Your task to perform on an android device: turn on translation in the chrome app Image 0: 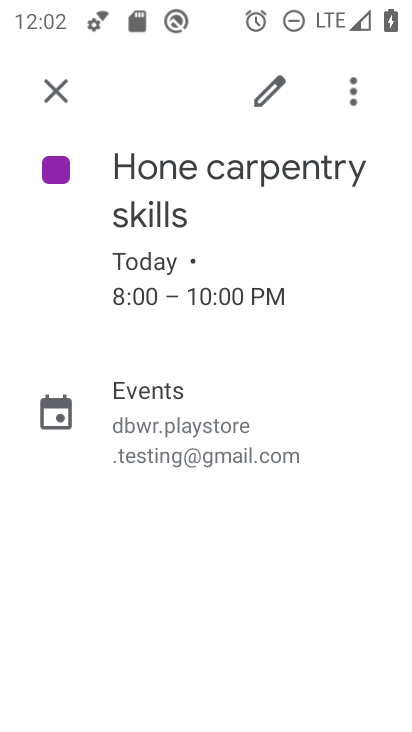
Step 0: press home button
Your task to perform on an android device: turn on translation in the chrome app Image 1: 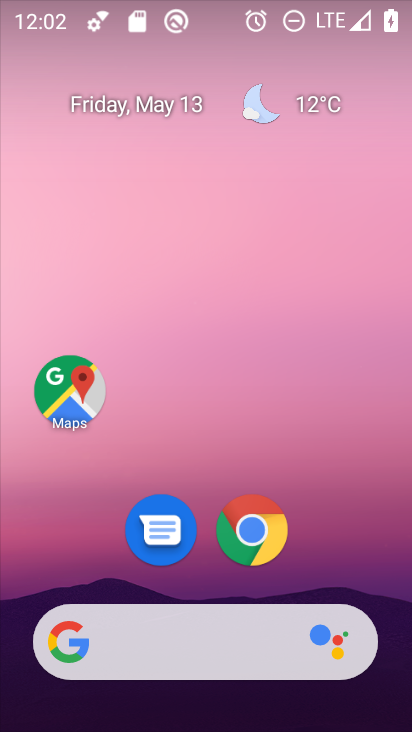
Step 1: drag from (154, 649) to (294, 247)
Your task to perform on an android device: turn on translation in the chrome app Image 2: 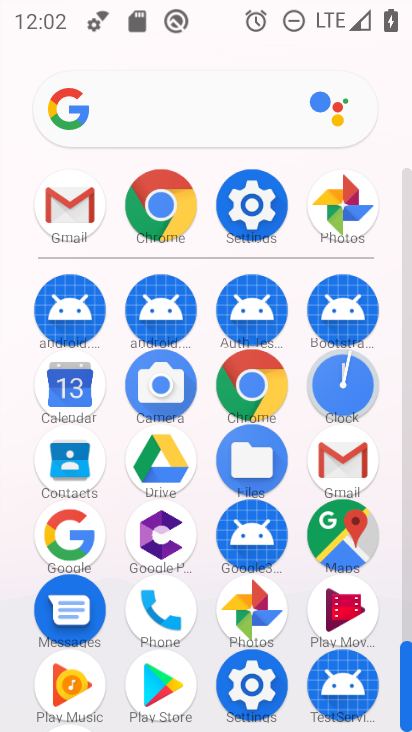
Step 2: click (263, 391)
Your task to perform on an android device: turn on translation in the chrome app Image 3: 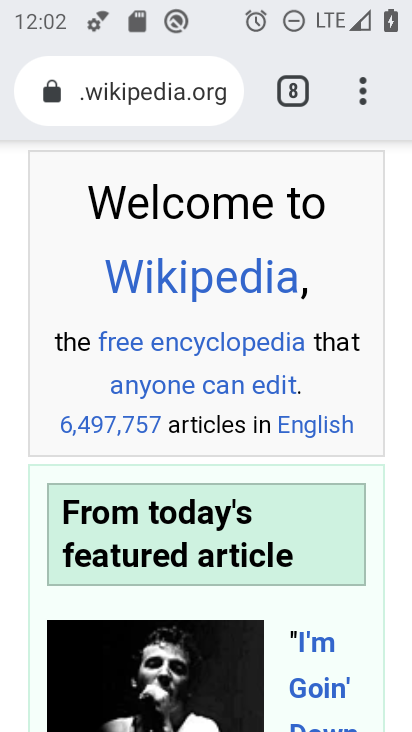
Step 3: drag from (365, 90) to (218, 558)
Your task to perform on an android device: turn on translation in the chrome app Image 4: 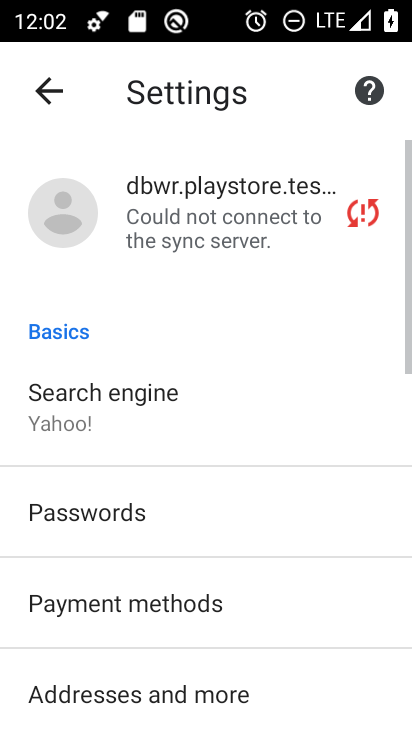
Step 4: drag from (155, 631) to (286, 152)
Your task to perform on an android device: turn on translation in the chrome app Image 5: 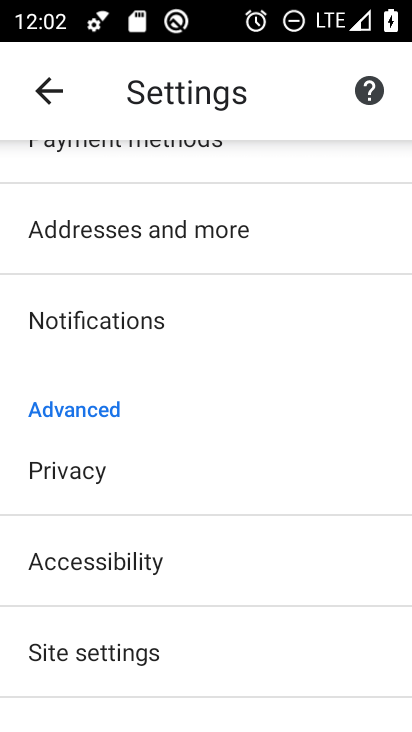
Step 5: drag from (146, 625) to (261, 293)
Your task to perform on an android device: turn on translation in the chrome app Image 6: 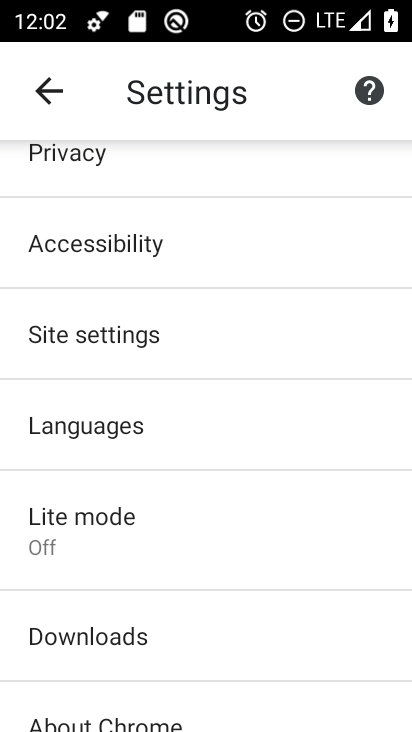
Step 6: click (109, 442)
Your task to perform on an android device: turn on translation in the chrome app Image 7: 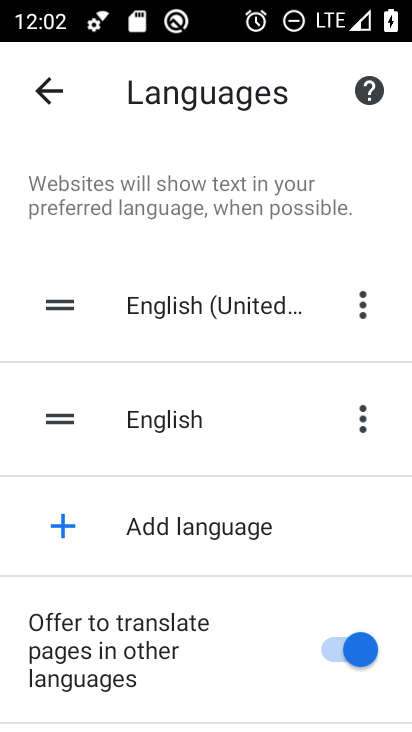
Step 7: task complete